Your task to perform on an android device: When is my next appointment? Image 0: 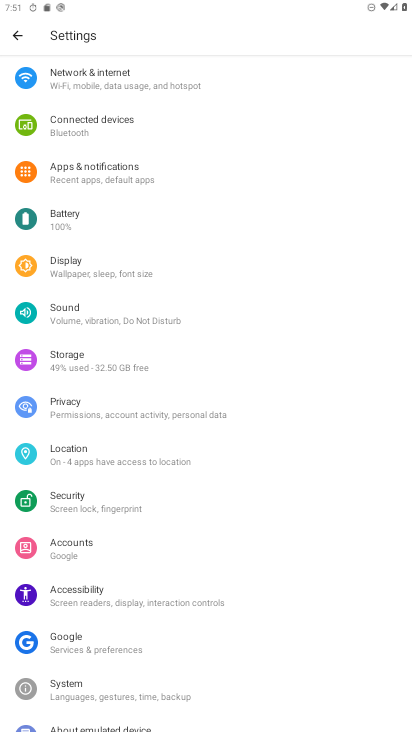
Step 0: press home button
Your task to perform on an android device: When is my next appointment? Image 1: 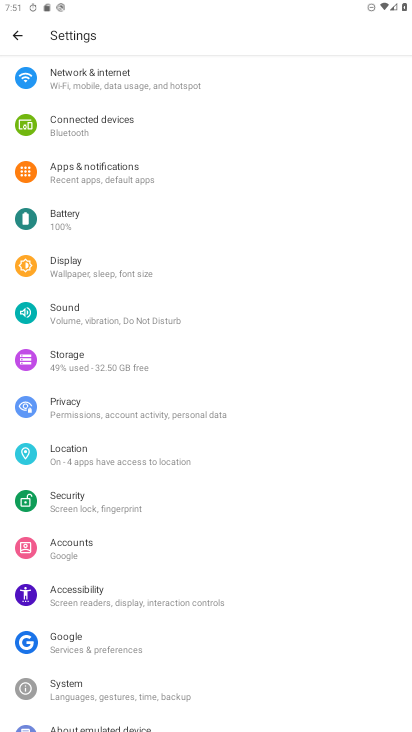
Step 1: press home button
Your task to perform on an android device: When is my next appointment? Image 2: 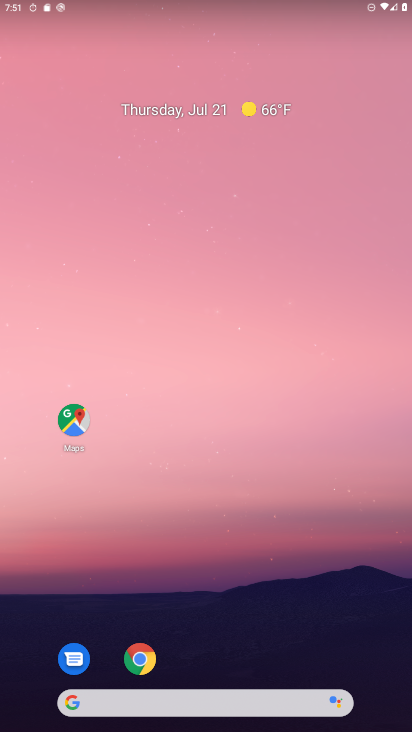
Step 2: drag from (190, 631) to (295, 60)
Your task to perform on an android device: When is my next appointment? Image 3: 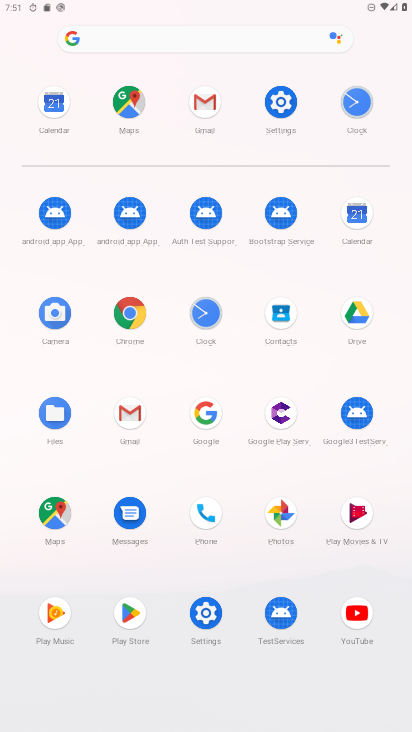
Step 3: click (354, 201)
Your task to perform on an android device: When is my next appointment? Image 4: 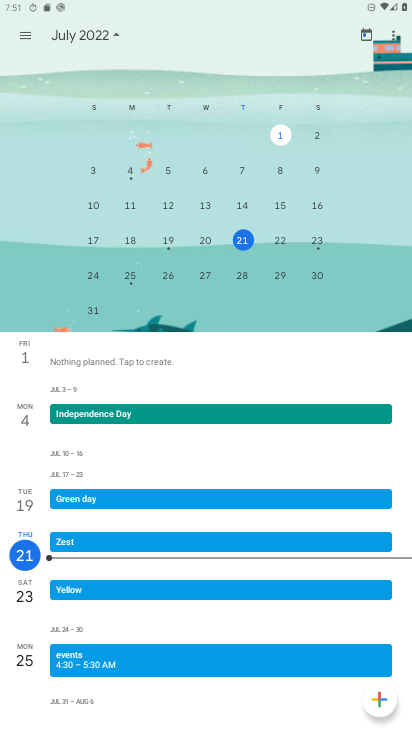
Step 4: click (254, 240)
Your task to perform on an android device: When is my next appointment? Image 5: 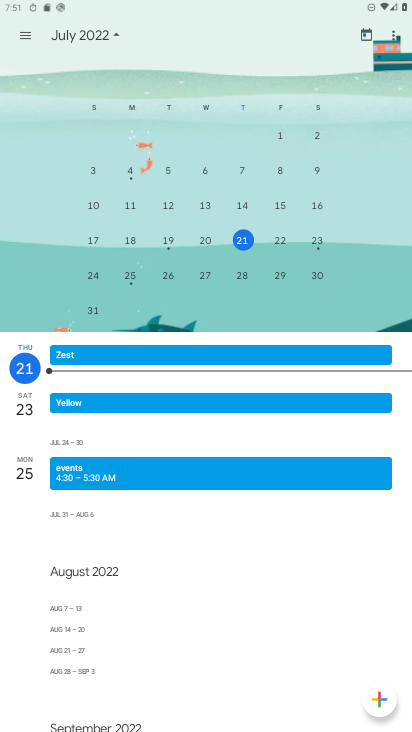
Step 5: click (248, 236)
Your task to perform on an android device: When is my next appointment? Image 6: 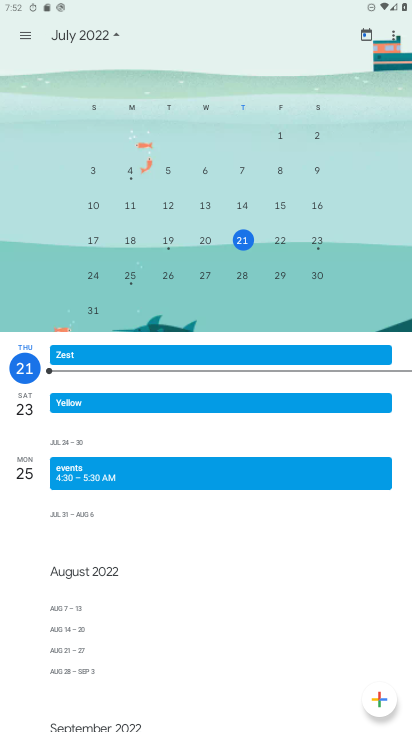
Step 6: task complete